Your task to perform on an android device: find which apps use the phone's location Image 0: 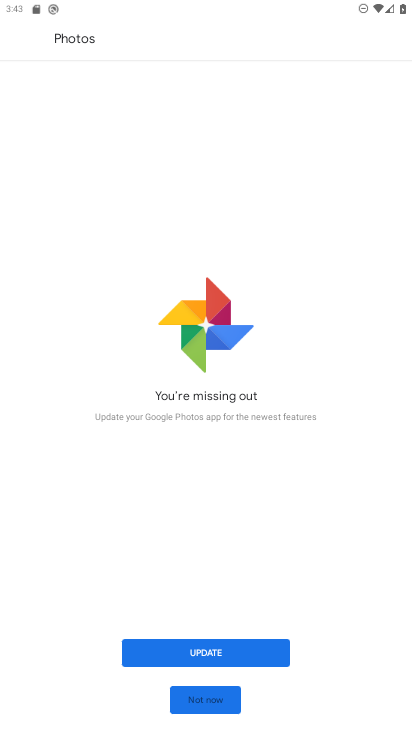
Step 0: press home button
Your task to perform on an android device: find which apps use the phone's location Image 1: 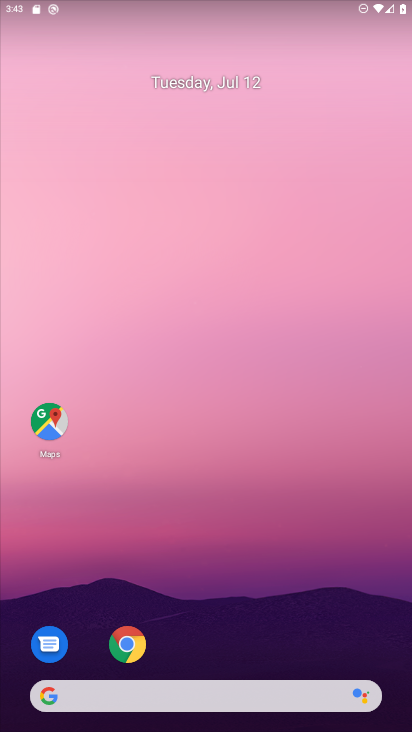
Step 1: drag from (235, 540) to (169, 39)
Your task to perform on an android device: find which apps use the phone's location Image 2: 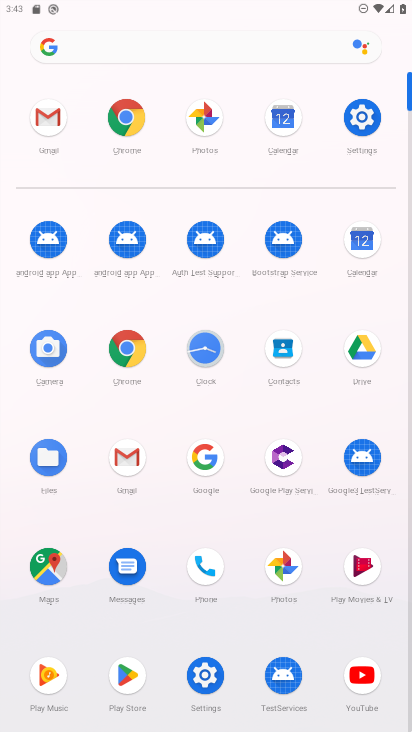
Step 2: click (357, 113)
Your task to perform on an android device: find which apps use the phone's location Image 3: 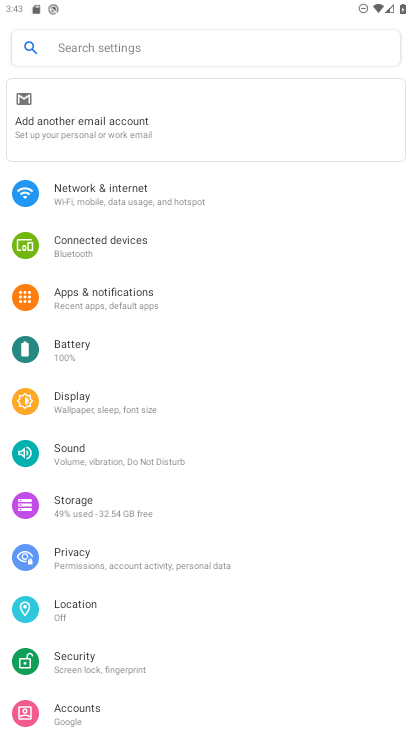
Step 3: click (71, 615)
Your task to perform on an android device: find which apps use the phone's location Image 4: 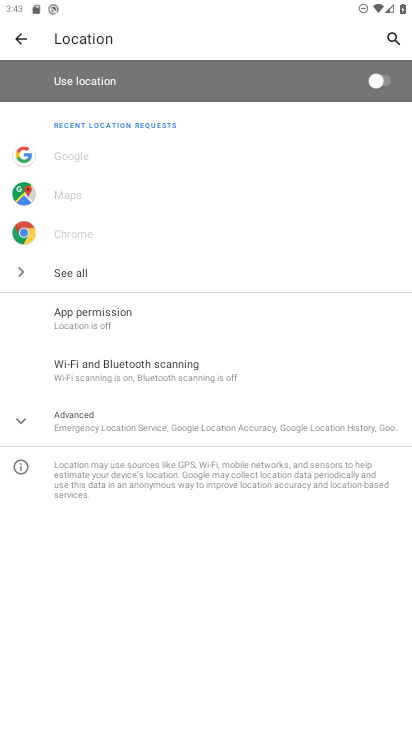
Step 4: click (114, 317)
Your task to perform on an android device: find which apps use the phone's location Image 5: 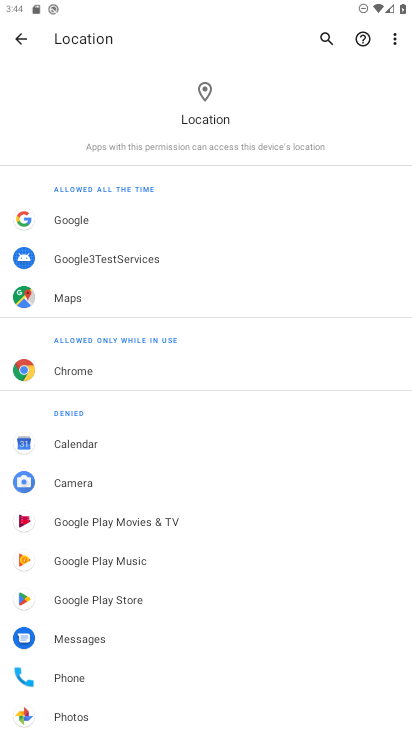
Step 5: task complete